Your task to perform on an android device: turn pop-ups on in chrome Image 0: 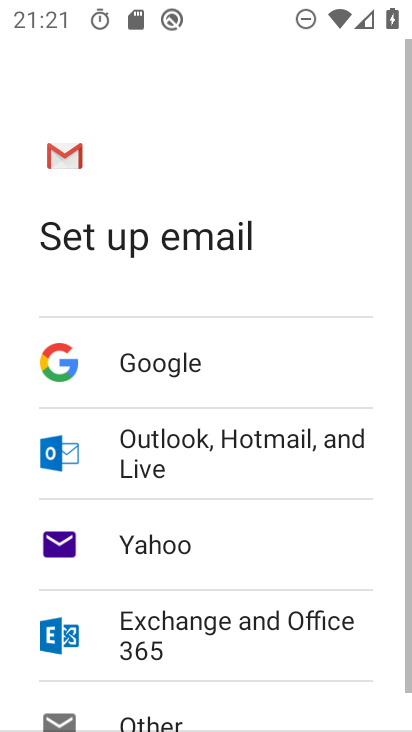
Step 0: press home button
Your task to perform on an android device: turn pop-ups on in chrome Image 1: 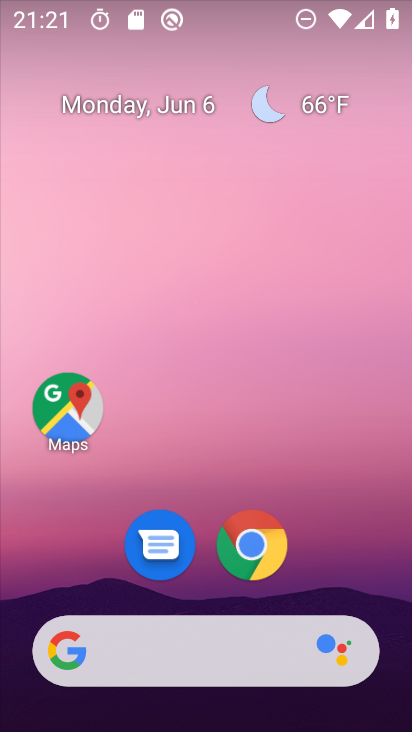
Step 1: click (257, 528)
Your task to perform on an android device: turn pop-ups on in chrome Image 2: 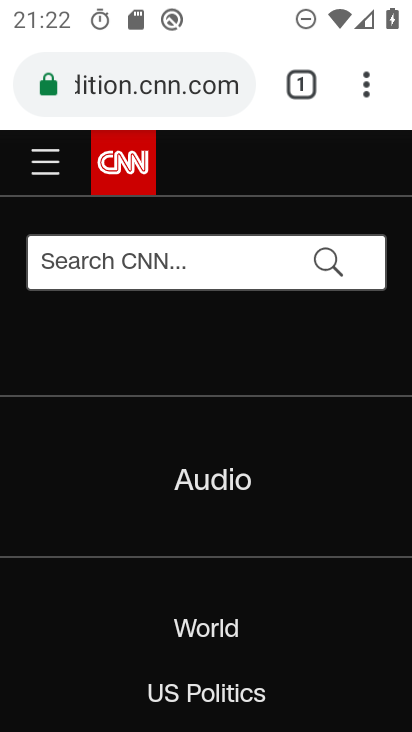
Step 2: click (364, 74)
Your task to perform on an android device: turn pop-ups on in chrome Image 3: 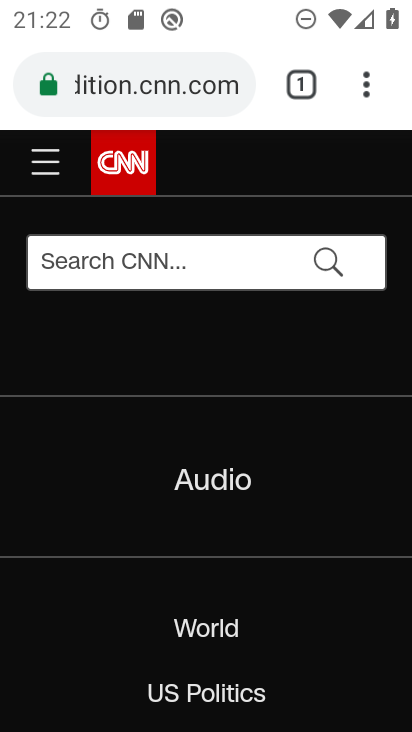
Step 3: click (363, 73)
Your task to perform on an android device: turn pop-ups on in chrome Image 4: 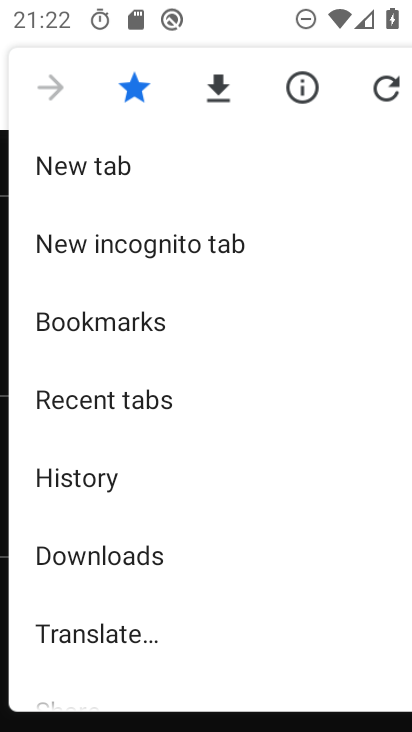
Step 4: drag from (116, 573) to (159, 305)
Your task to perform on an android device: turn pop-ups on in chrome Image 5: 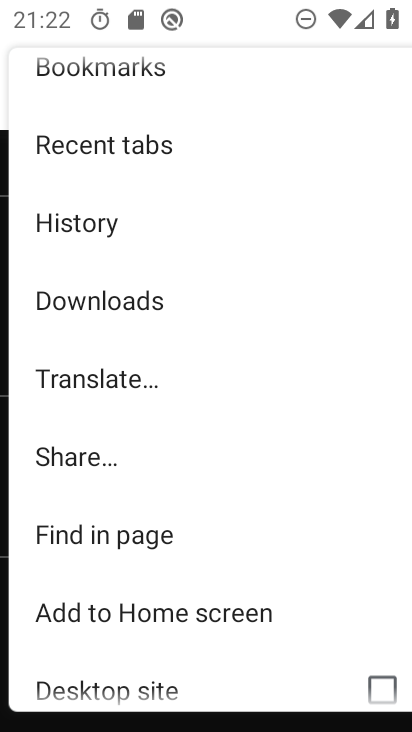
Step 5: drag from (101, 682) to (201, 124)
Your task to perform on an android device: turn pop-ups on in chrome Image 6: 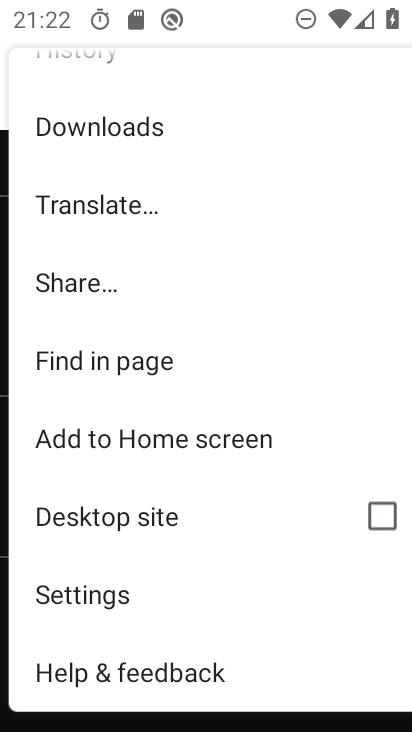
Step 6: click (93, 586)
Your task to perform on an android device: turn pop-ups on in chrome Image 7: 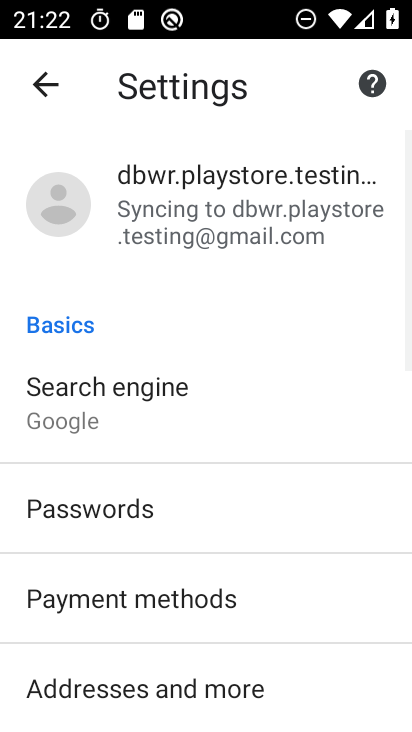
Step 7: drag from (175, 706) to (235, 206)
Your task to perform on an android device: turn pop-ups on in chrome Image 8: 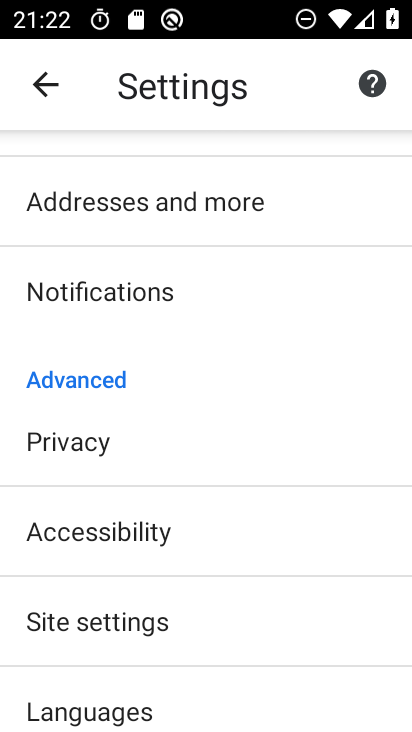
Step 8: drag from (114, 594) to (127, 376)
Your task to perform on an android device: turn pop-ups on in chrome Image 9: 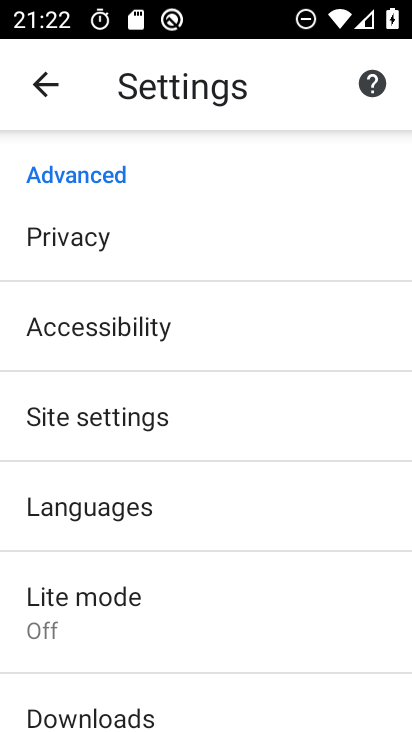
Step 9: click (102, 400)
Your task to perform on an android device: turn pop-ups on in chrome Image 10: 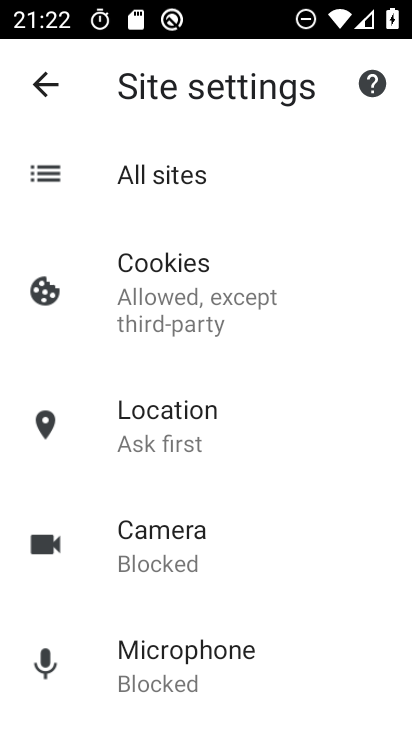
Step 10: drag from (164, 654) to (222, 119)
Your task to perform on an android device: turn pop-ups on in chrome Image 11: 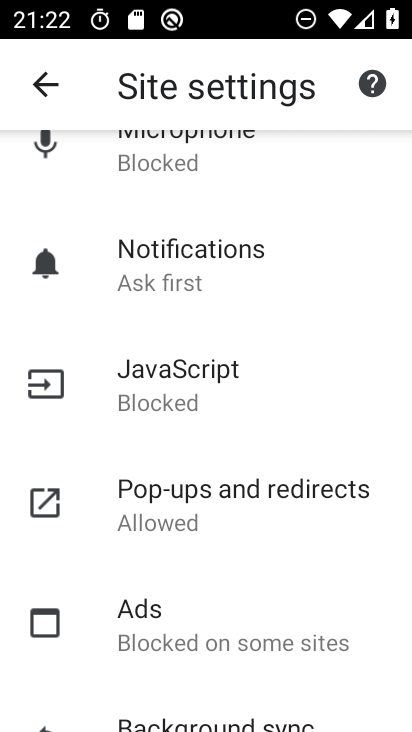
Step 11: click (168, 501)
Your task to perform on an android device: turn pop-ups on in chrome Image 12: 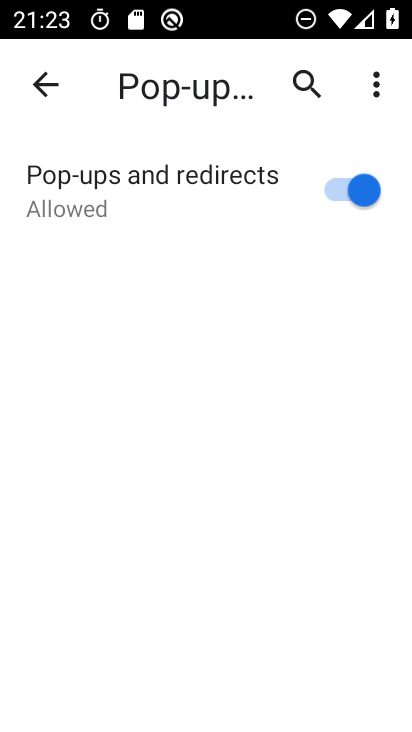
Step 12: task complete